Your task to perform on an android device: Search for Mexican restaurants on Maps Image 0: 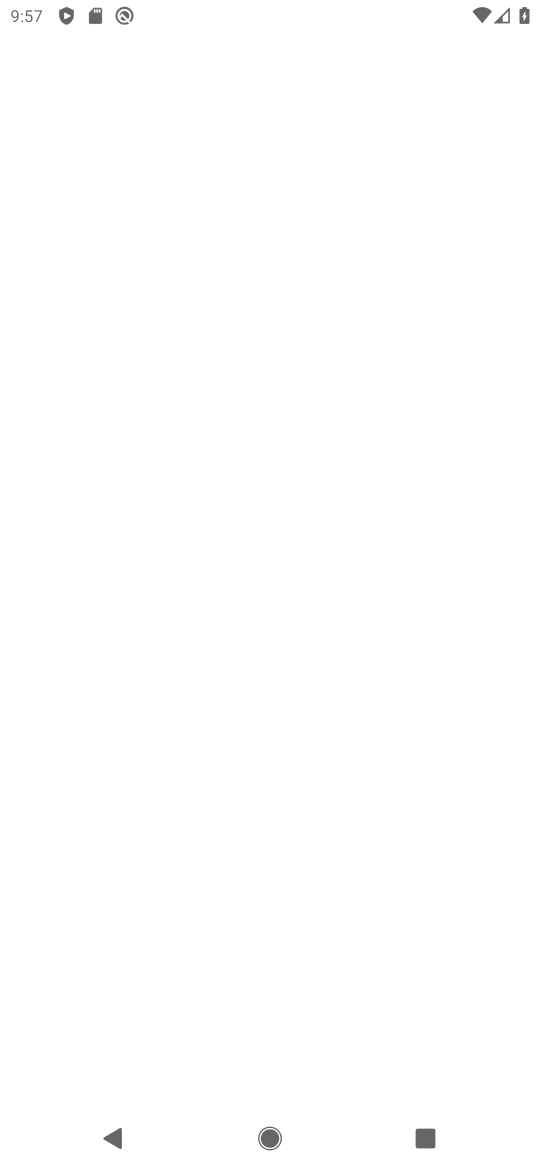
Step 0: press home button
Your task to perform on an android device: Search for Mexican restaurants on Maps Image 1: 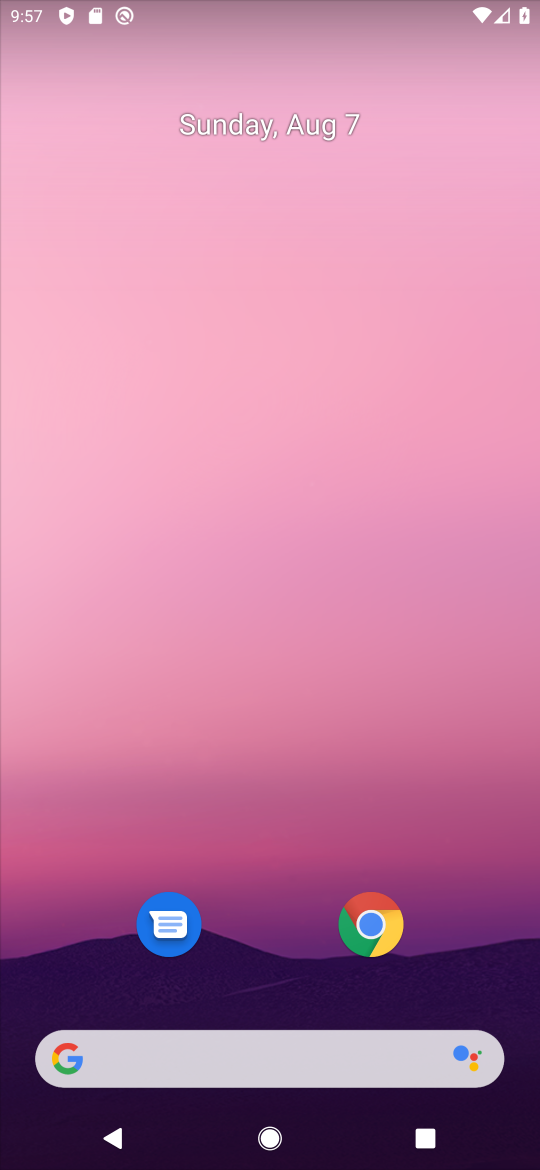
Step 1: drag from (240, 861) to (320, 368)
Your task to perform on an android device: Search for Mexican restaurants on Maps Image 2: 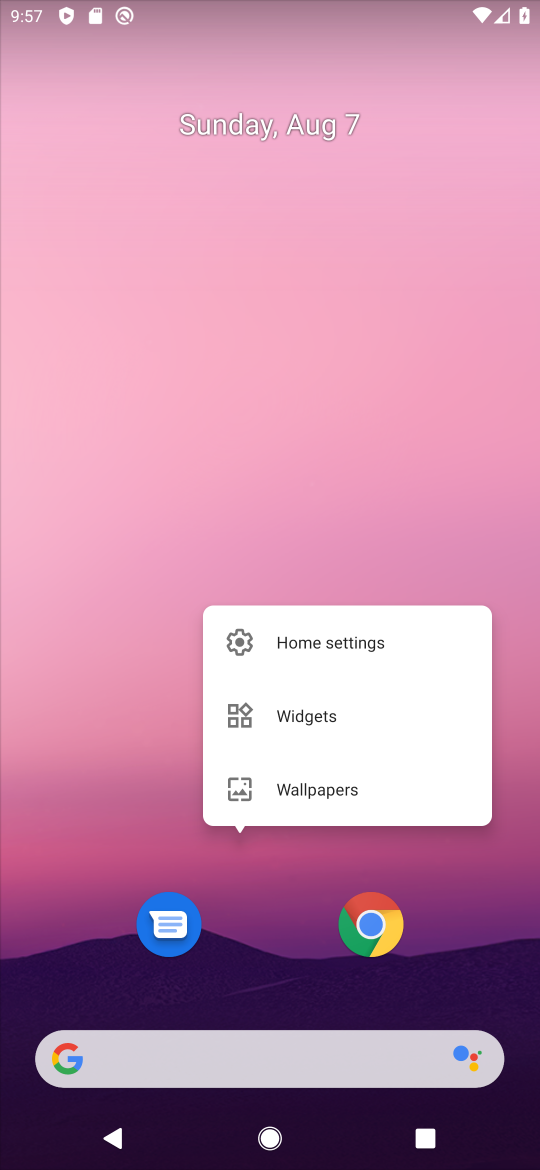
Step 2: click (254, 529)
Your task to perform on an android device: Search for Mexican restaurants on Maps Image 3: 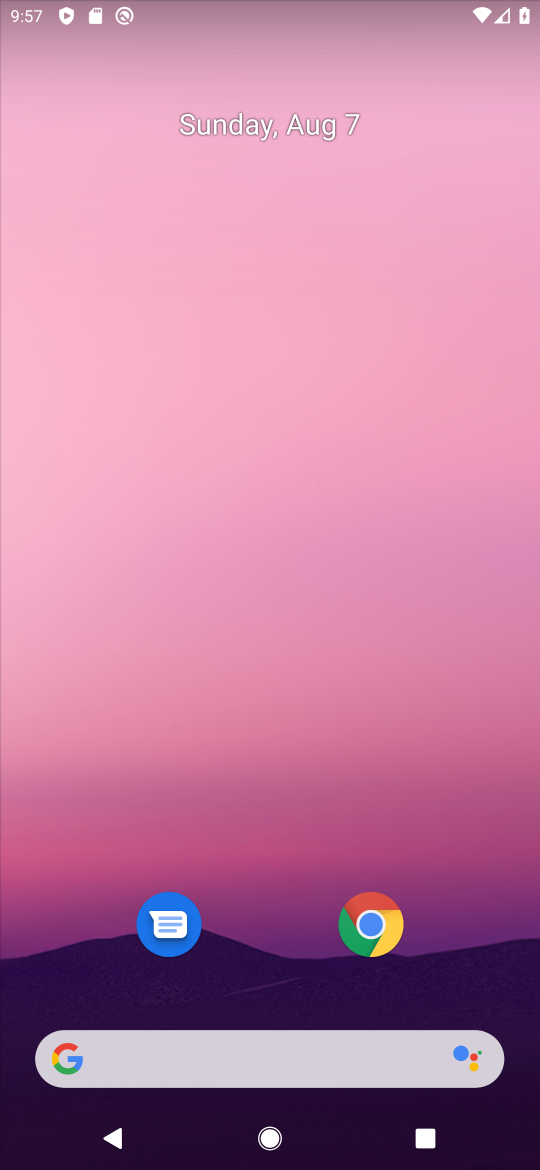
Step 3: drag from (232, 750) to (60, 0)
Your task to perform on an android device: Search for Mexican restaurants on Maps Image 4: 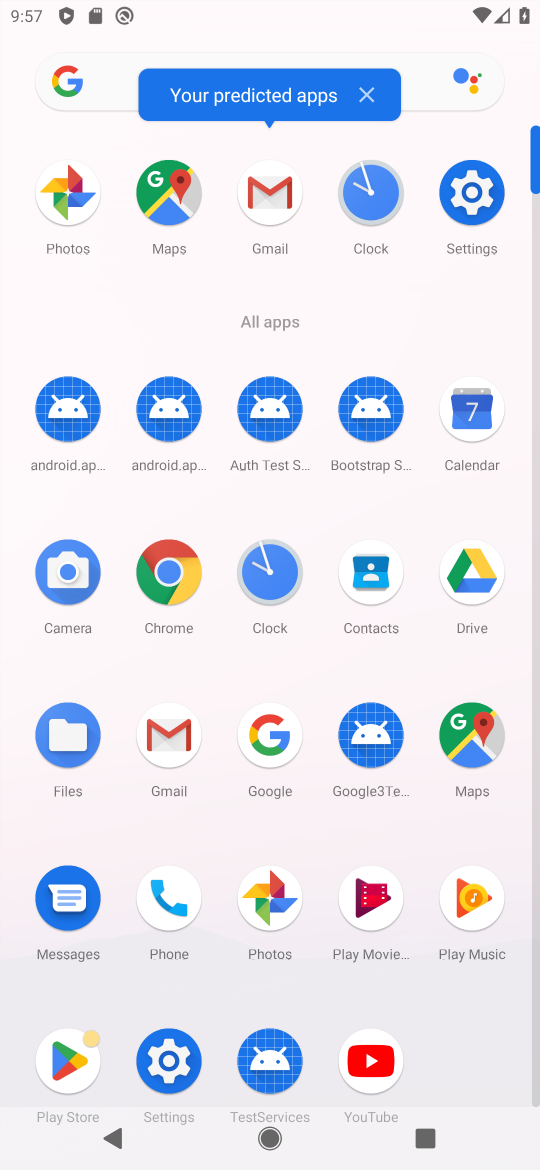
Step 4: click (168, 206)
Your task to perform on an android device: Search for Mexican restaurants on Maps Image 5: 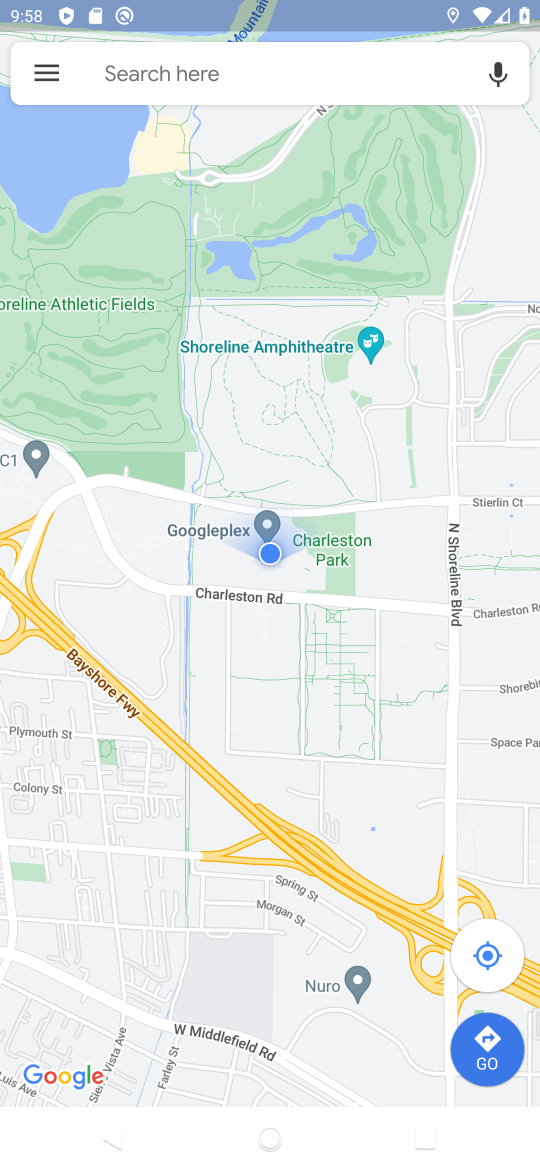
Step 5: click (154, 84)
Your task to perform on an android device: Search for Mexican restaurants on Maps Image 6: 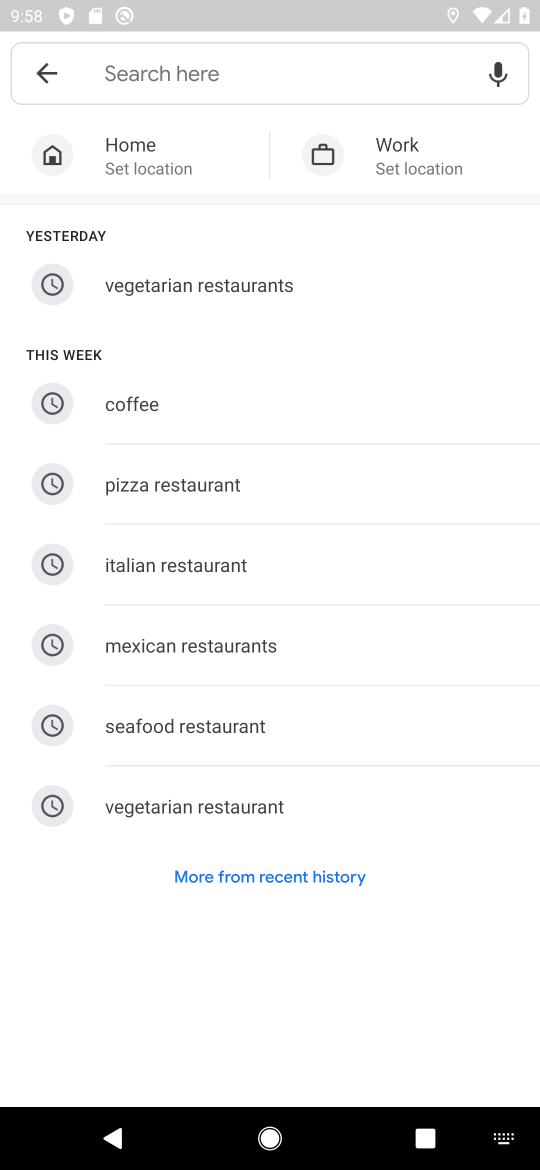
Step 6: click (165, 651)
Your task to perform on an android device: Search for Mexican restaurants on Maps Image 7: 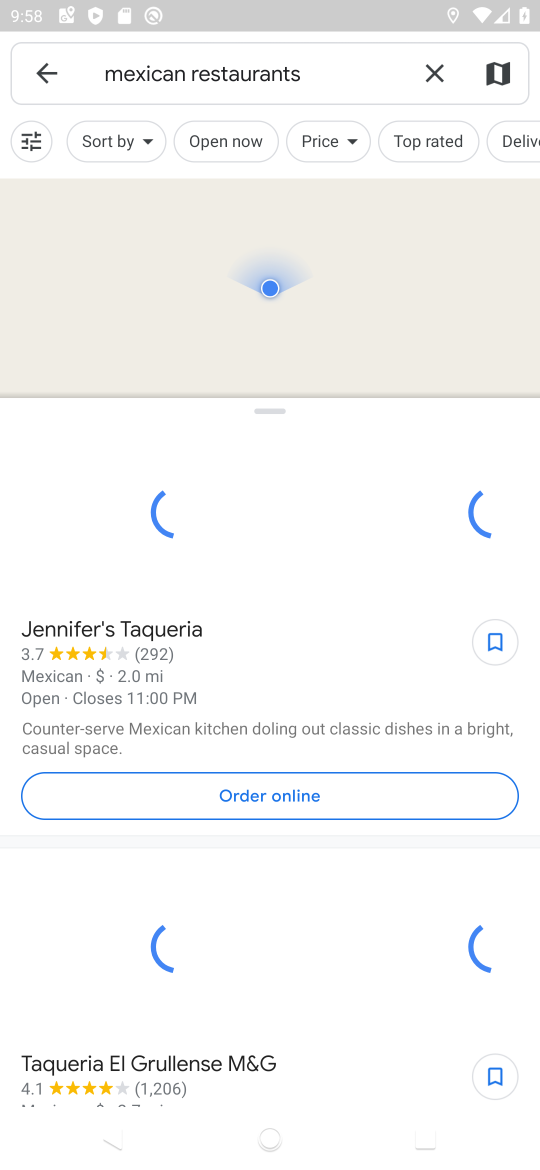
Step 7: task complete